Your task to perform on an android device: Open the calendar app, open the side menu, and click the "Day" option Image 0: 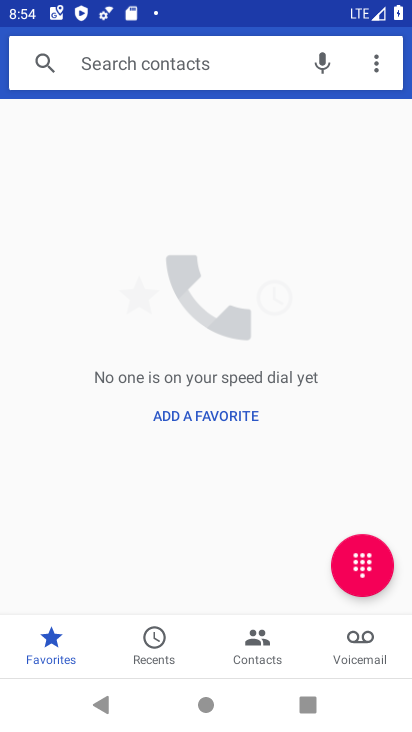
Step 0: press back button
Your task to perform on an android device: Open the calendar app, open the side menu, and click the "Day" option Image 1: 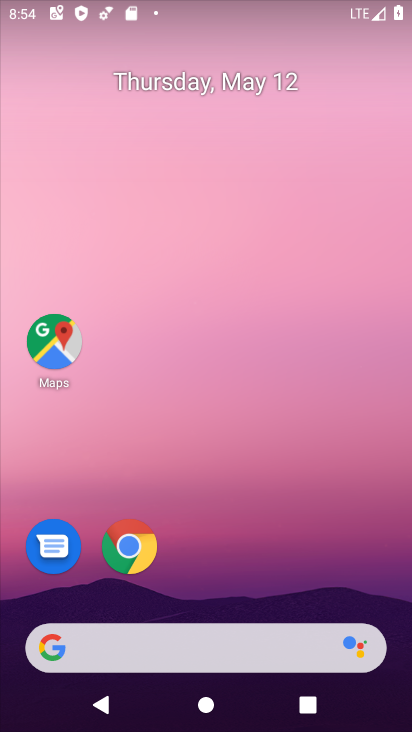
Step 1: drag from (301, 553) to (298, 31)
Your task to perform on an android device: Open the calendar app, open the side menu, and click the "Day" option Image 2: 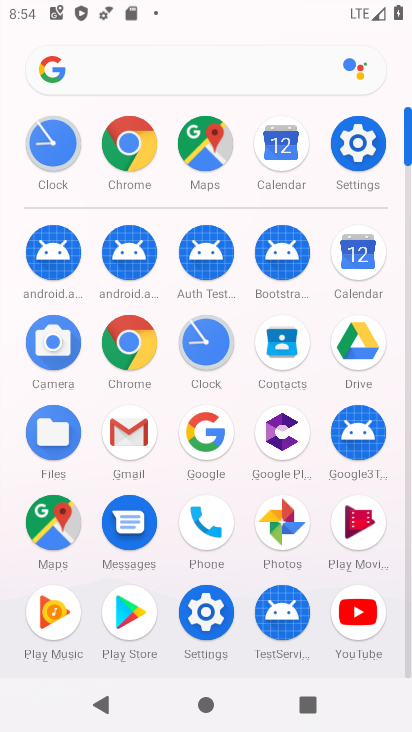
Step 2: click (355, 248)
Your task to perform on an android device: Open the calendar app, open the side menu, and click the "Day" option Image 3: 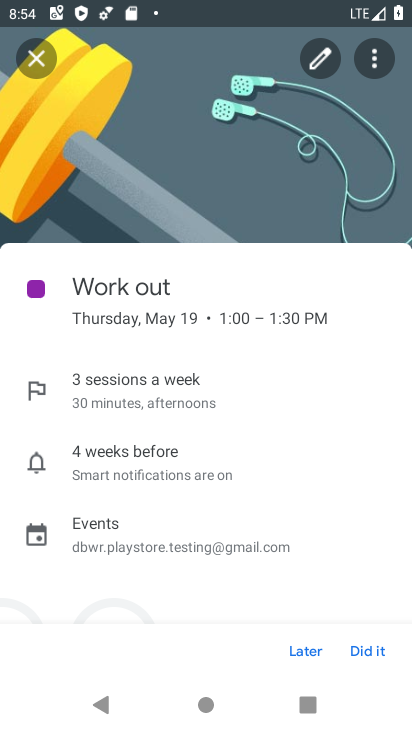
Step 3: click (316, 647)
Your task to perform on an android device: Open the calendar app, open the side menu, and click the "Day" option Image 4: 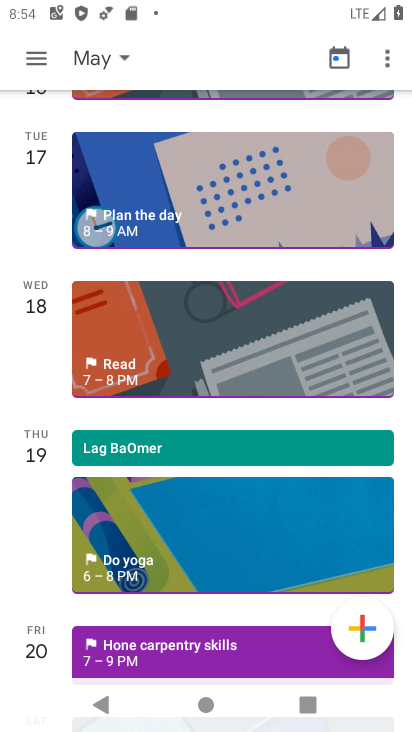
Step 4: click (36, 47)
Your task to perform on an android device: Open the calendar app, open the side menu, and click the "Day" option Image 5: 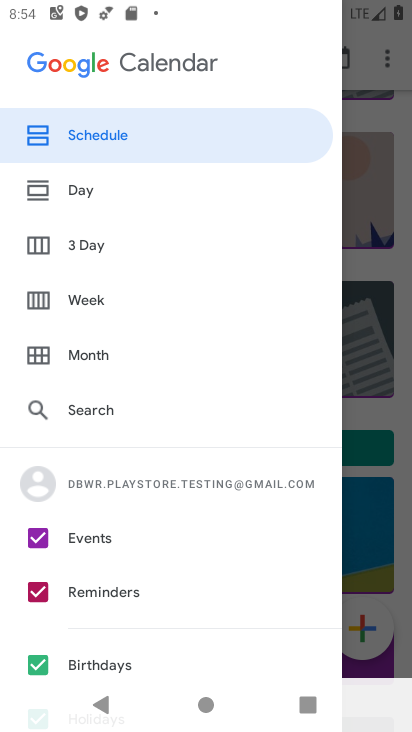
Step 5: click (87, 186)
Your task to perform on an android device: Open the calendar app, open the side menu, and click the "Day" option Image 6: 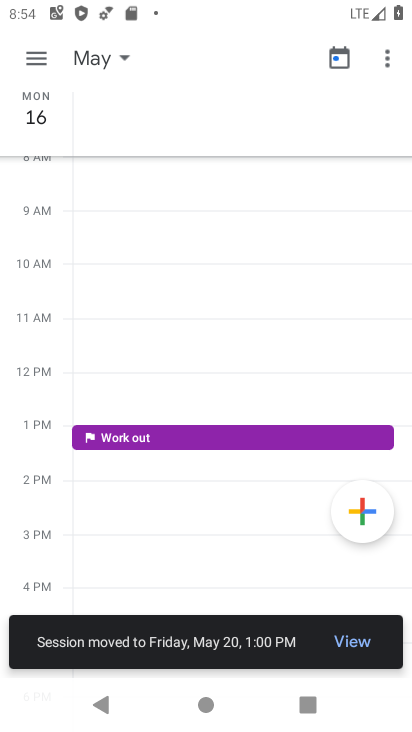
Step 6: task complete